Your task to perform on an android device: manage bookmarks in the chrome app Image 0: 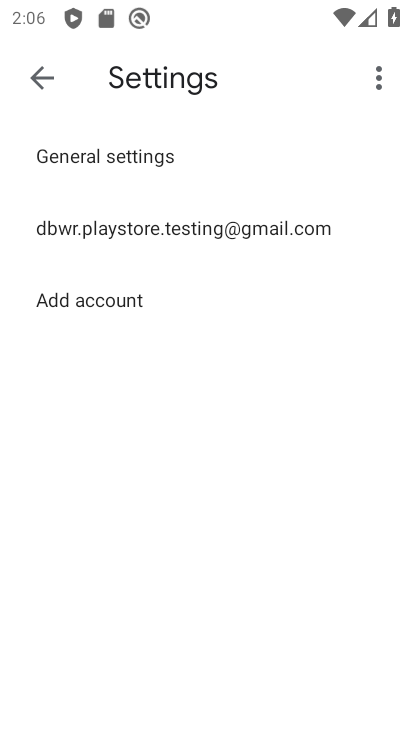
Step 0: press home button
Your task to perform on an android device: manage bookmarks in the chrome app Image 1: 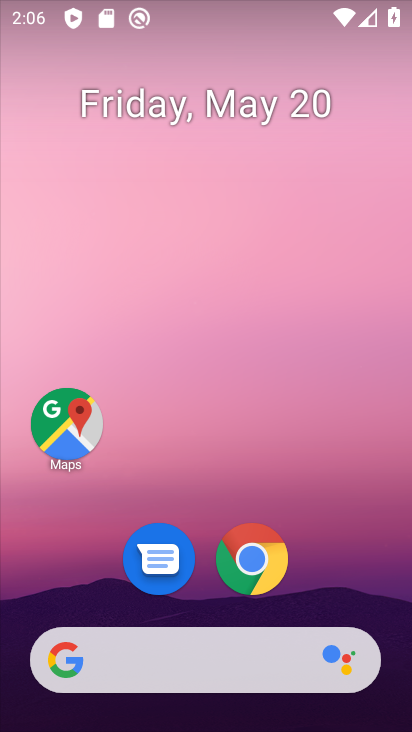
Step 1: click (264, 560)
Your task to perform on an android device: manage bookmarks in the chrome app Image 2: 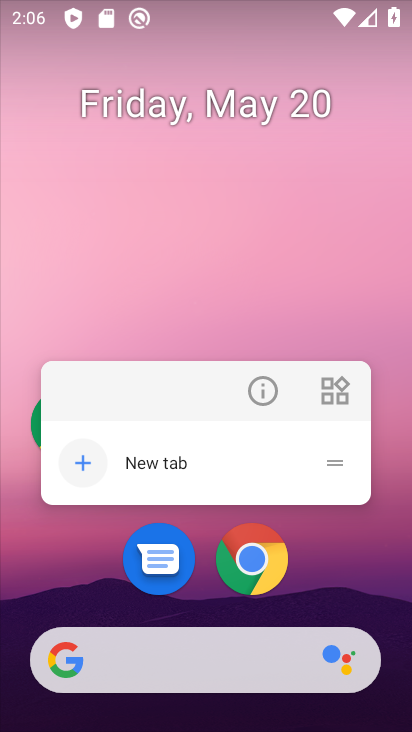
Step 2: click (264, 560)
Your task to perform on an android device: manage bookmarks in the chrome app Image 3: 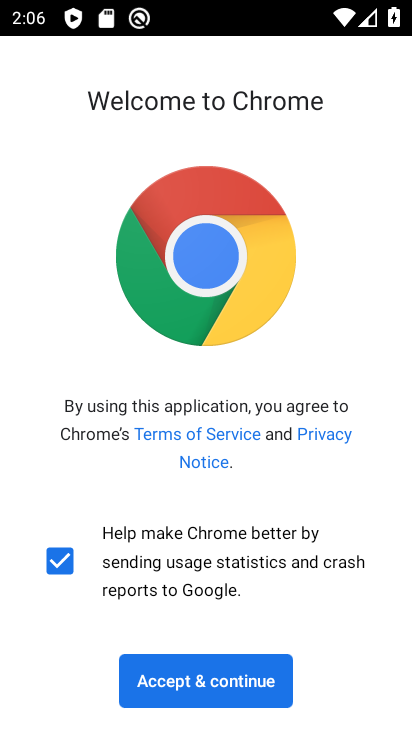
Step 3: click (262, 678)
Your task to perform on an android device: manage bookmarks in the chrome app Image 4: 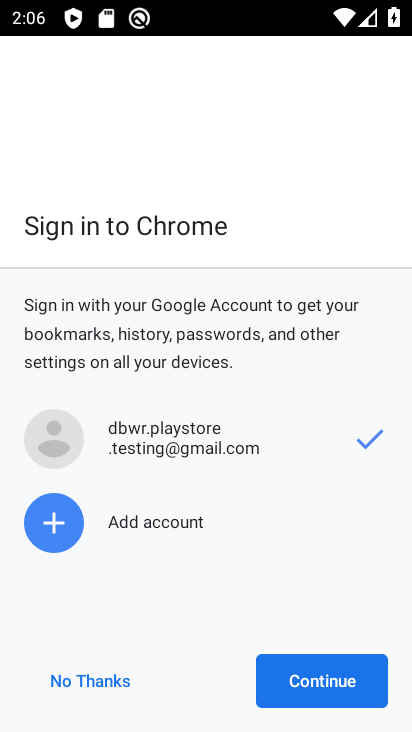
Step 4: click (303, 667)
Your task to perform on an android device: manage bookmarks in the chrome app Image 5: 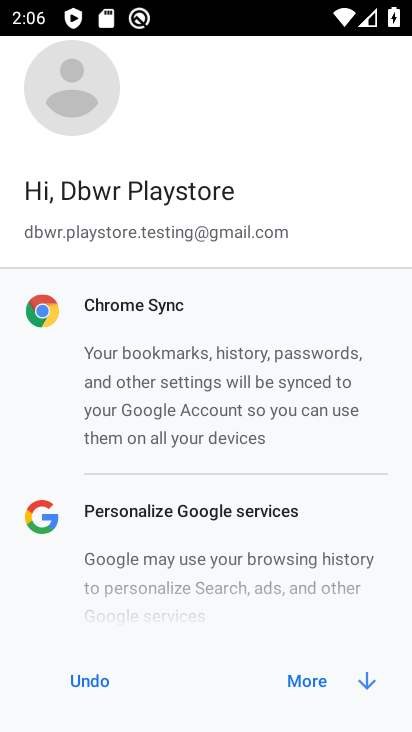
Step 5: click (301, 676)
Your task to perform on an android device: manage bookmarks in the chrome app Image 6: 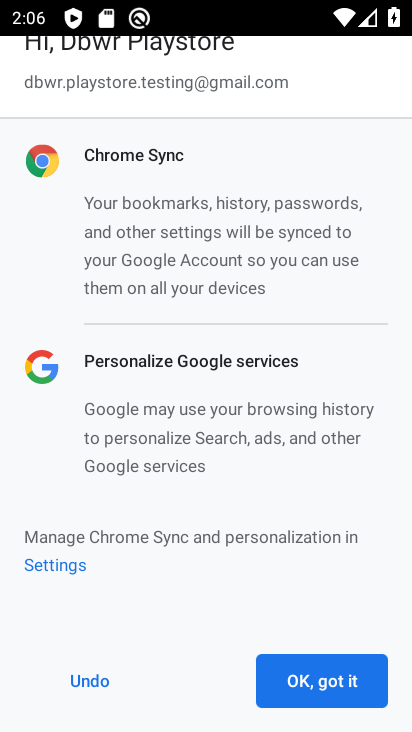
Step 6: click (301, 675)
Your task to perform on an android device: manage bookmarks in the chrome app Image 7: 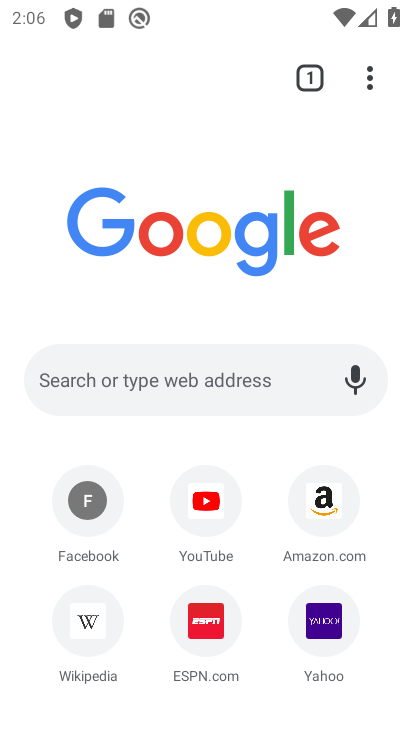
Step 7: click (366, 73)
Your task to perform on an android device: manage bookmarks in the chrome app Image 8: 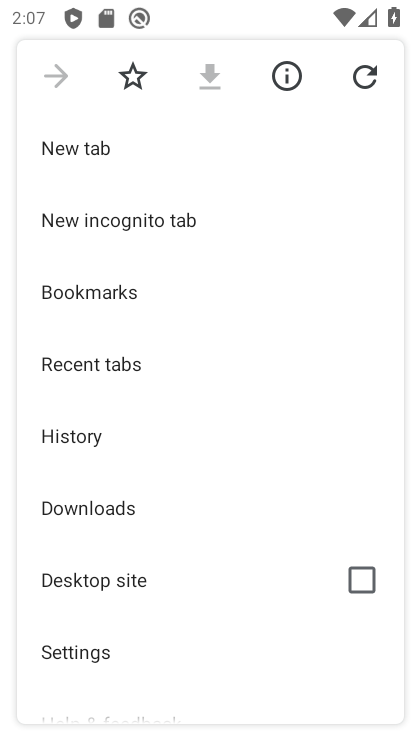
Step 8: click (133, 299)
Your task to perform on an android device: manage bookmarks in the chrome app Image 9: 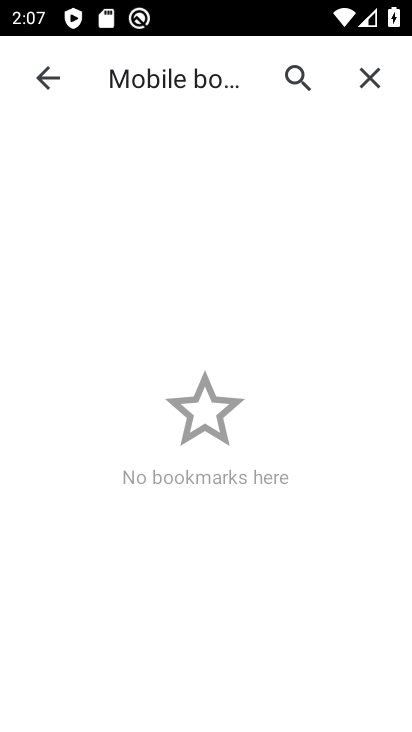
Step 9: task complete